Your task to perform on an android device: Find coffee shops on Maps Image 0: 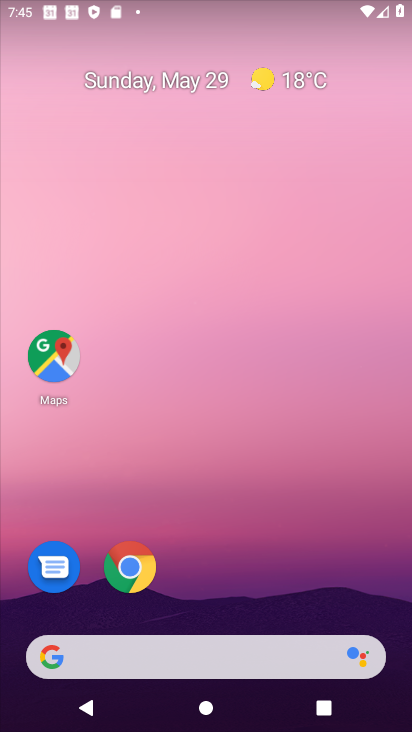
Step 0: click (52, 358)
Your task to perform on an android device: Find coffee shops on Maps Image 1: 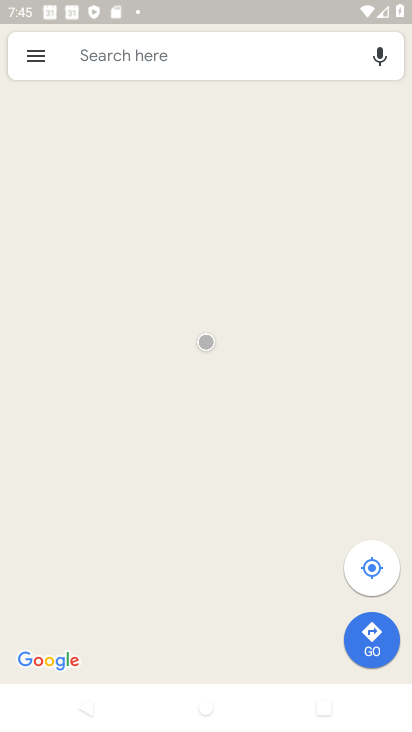
Step 1: click (98, 59)
Your task to perform on an android device: Find coffee shops on Maps Image 2: 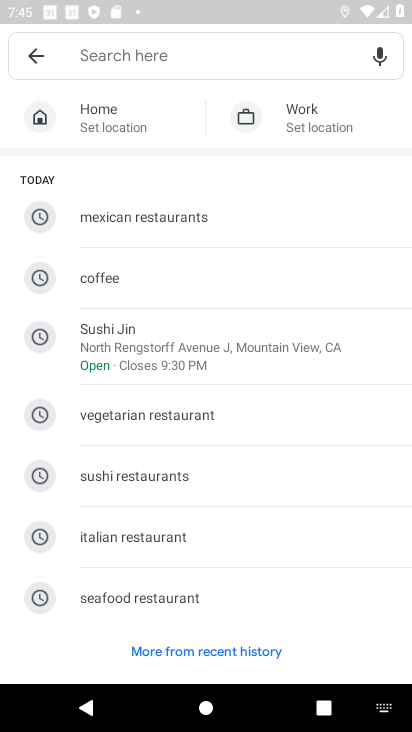
Step 2: type "coffee shops"
Your task to perform on an android device: Find coffee shops on Maps Image 3: 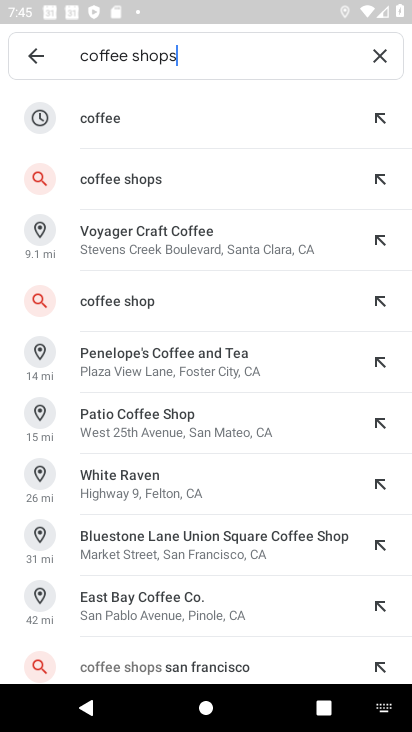
Step 3: click (122, 175)
Your task to perform on an android device: Find coffee shops on Maps Image 4: 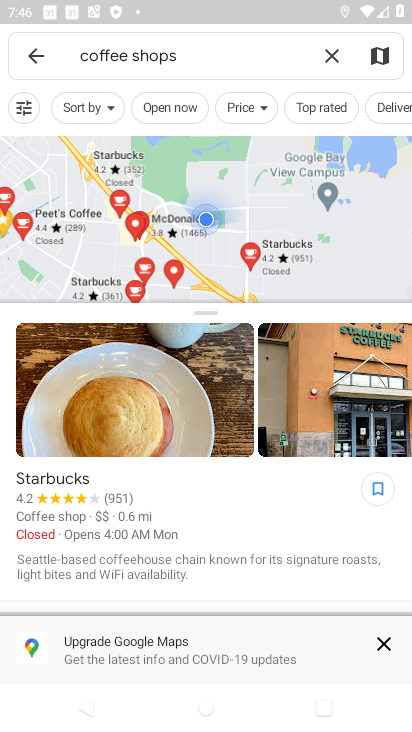
Step 4: task complete